Your task to perform on an android device: Open calendar and show me the fourth week of next month Image 0: 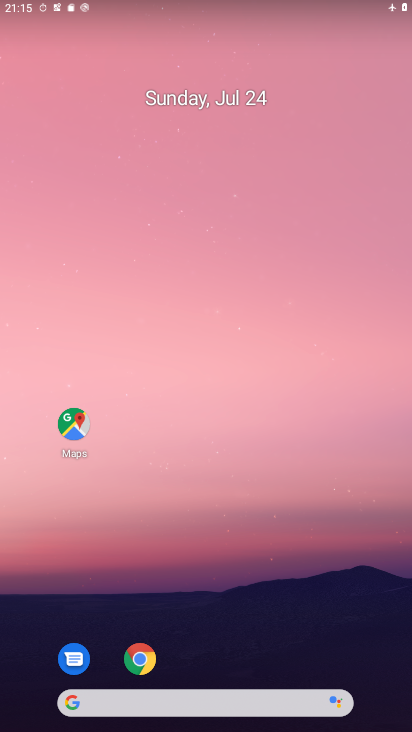
Step 0: drag from (218, 723) to (231, 192)
Your task to perform on an android device: Open calendar and show me the fourth week of next month Image 1: 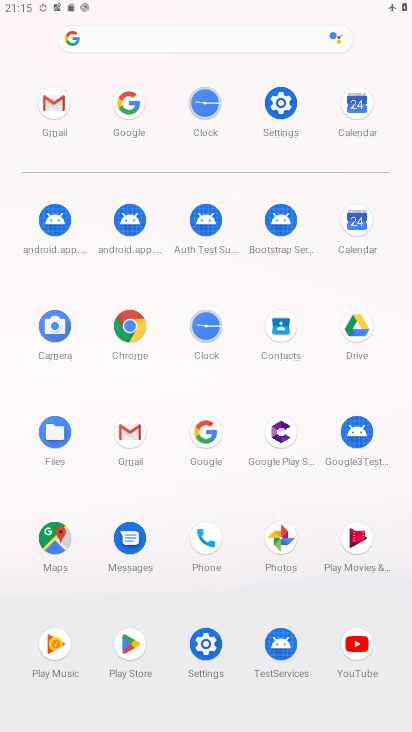
Step 1: click (359, 220)
Your task to perform on an android device: Open calendar and show me the fourth week of next month Image 2: 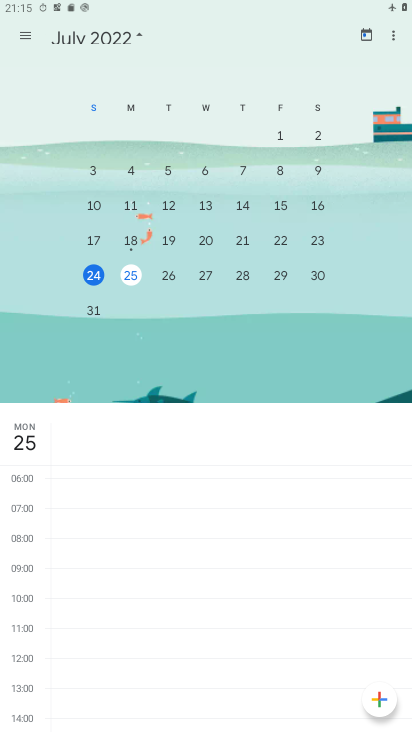
Step 2: drag from (273, 212) to (25, 207)
Your task to perform on an android device: Open calendar and show me the fourth week of next month Image 3: 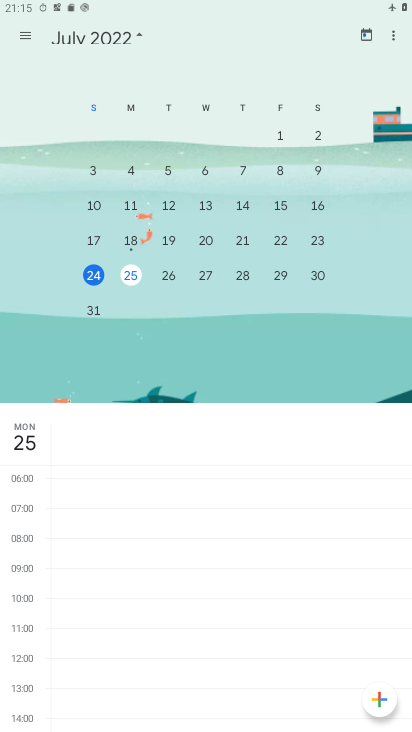
Step 3: click (131, 276)
Your task to perform on an android device: Open calendar and show me the fourth week of next month Image 4: 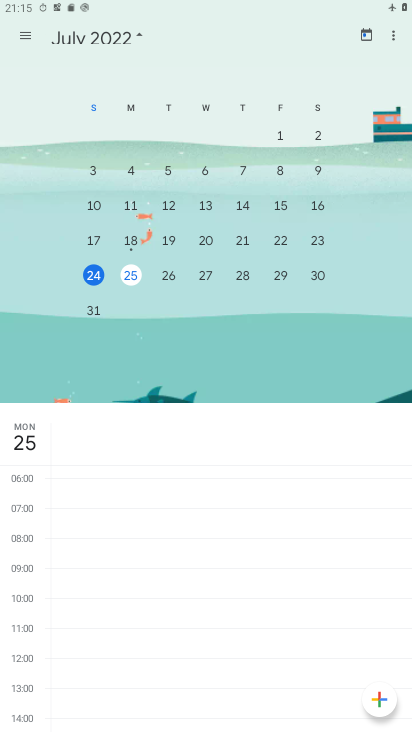
Step 4: click (22, 37)
Your task to perform on an android device: Open calendar and show me the fourth week of next month Image 5: 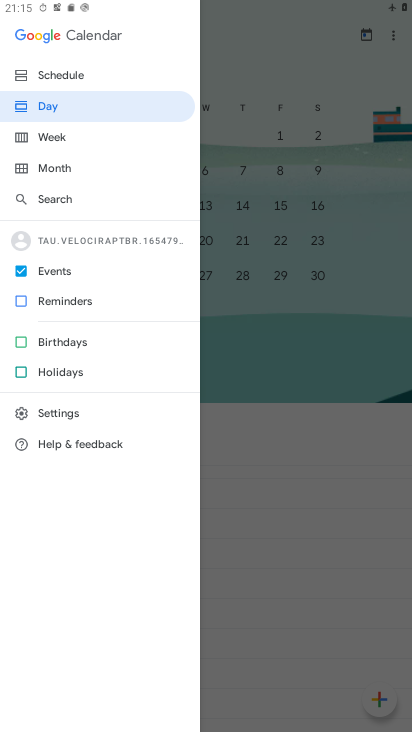
Step 5: click (46, 137)
Your task to perform on an android device: Open calendar and show me the fourth week of next month Image 6: 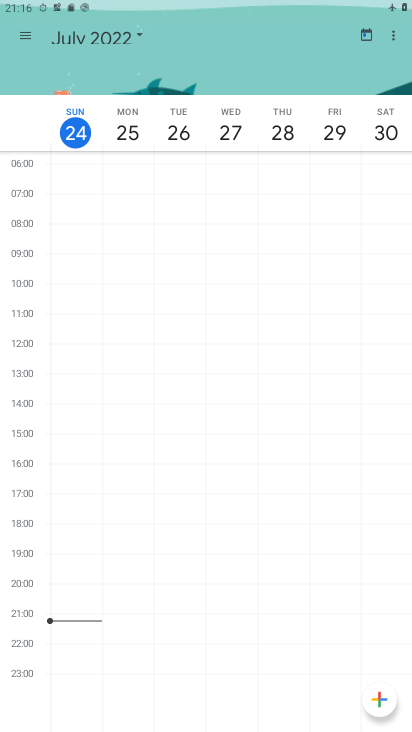
Step 6: task complete